Your task to perform on an android device: turn off notifications in google photos Image 0: 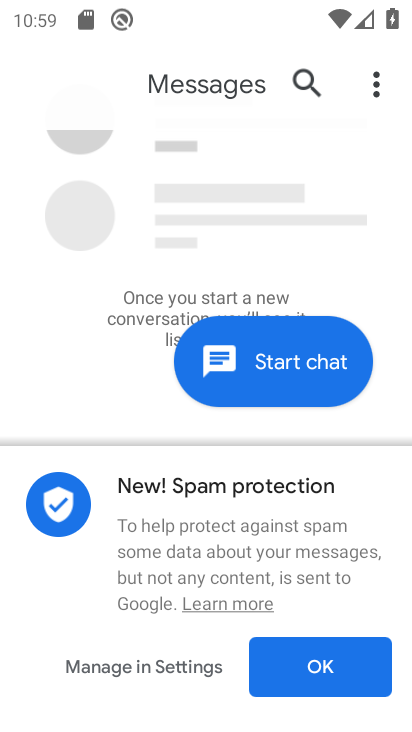
Step 0: press home button
Your task to perform on an android device: turn off notifications in google photos Image 1: 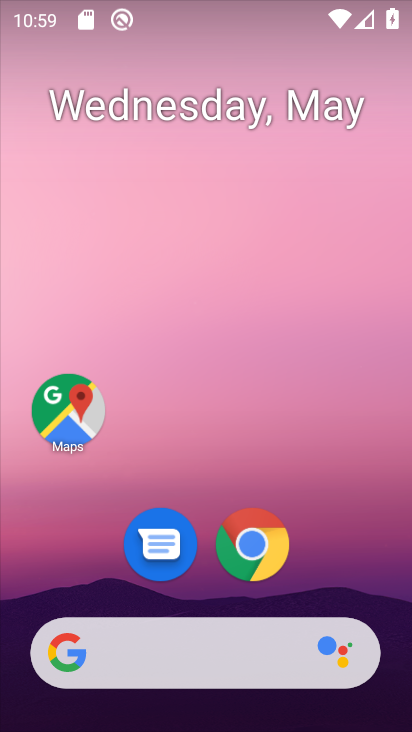
Step 1: drag from (356, 576) to (24, 32)
Your task to perform on an android device: turn off notifications in google photos Image 2: 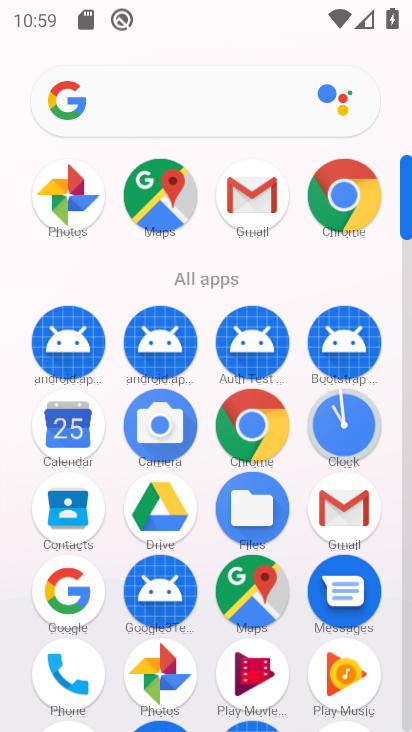
Step 2: click (76, 195)
Your task to perform on an android device: turn off notifications in google photos Image 3: 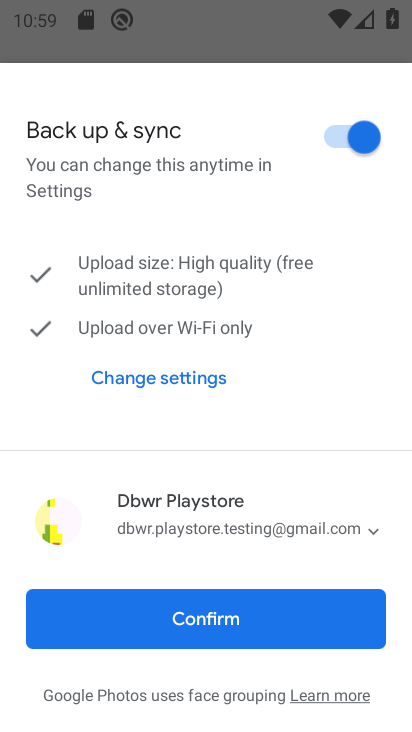
Step 3: press back button
Your task to perform on an android device: turn off notifications in google photos Image 4: 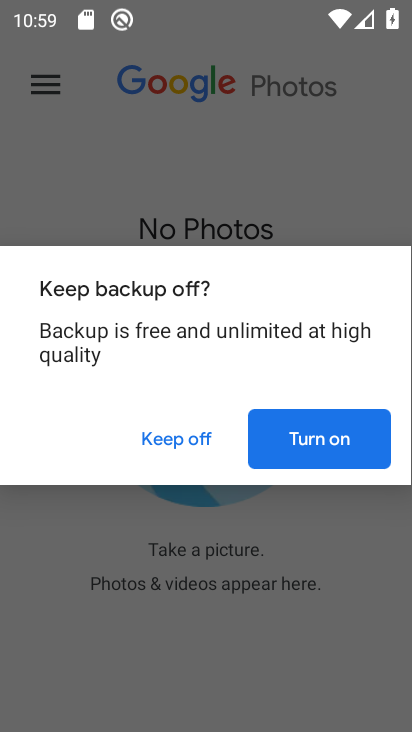
Step 4: click (306, 444)
Your task to perform on an android device: turn off notifications in google photos Image 5: 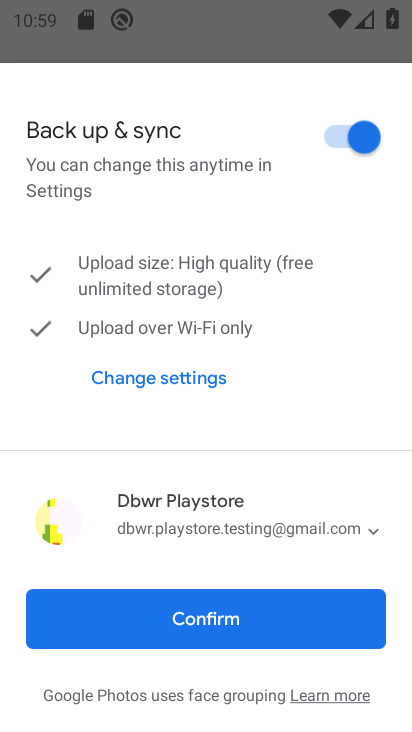
Step 5: click (189, 624)
Your task to perform on an android device: turn off notifications in google photos Image 6: 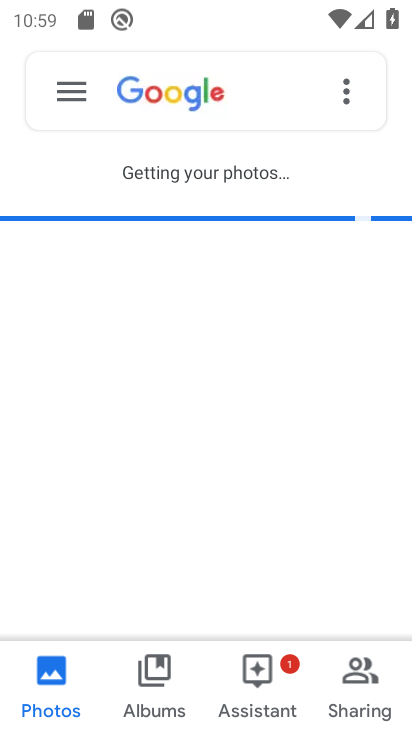
Step 6: click (71, 88)
Your task to perform on an android device: turn off notifications in google photos Image 7: 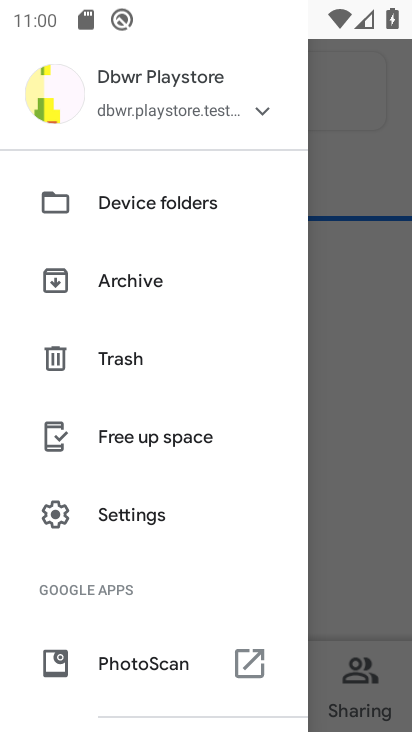
Step 7: click (123, 512)
Your task to perform on an android device: turn off notifications in google photos Image 8: 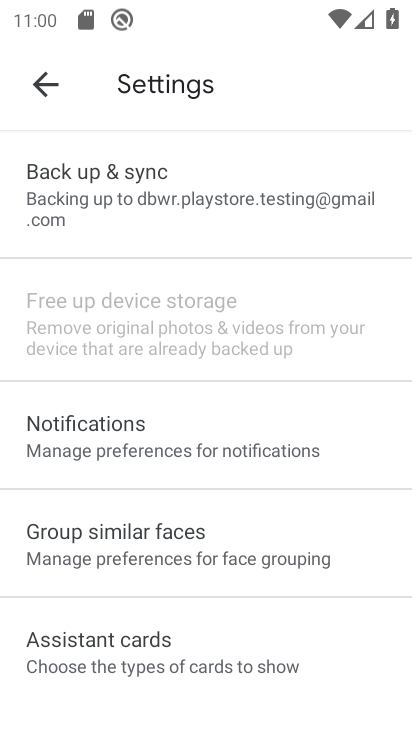
Step 8: click (94, 200)
Your task to perform on an android device: turn off notifications in google photos Image 9: 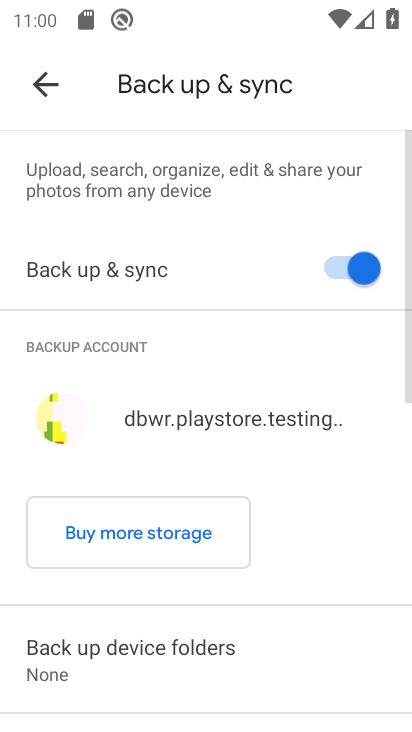
Step 9: click (45, 93)
Your task to perform on an android device: turn off notifications in google photos Image 10: 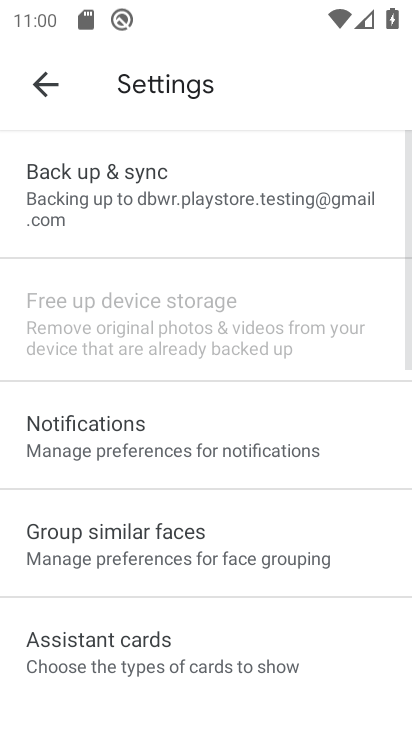
Step 10: click (88, 415)
Your task to perform on an android device: turn off notifications in google photos Image 11: 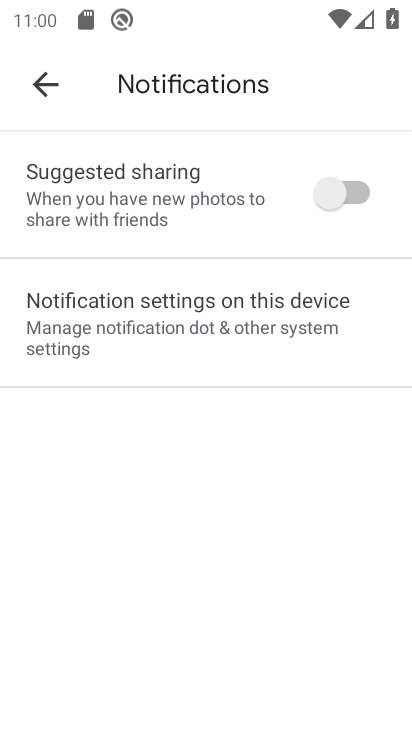
Step 11: click (156, 335)
Your task to perform on an android device: turn off notifications in google photos Image 12: 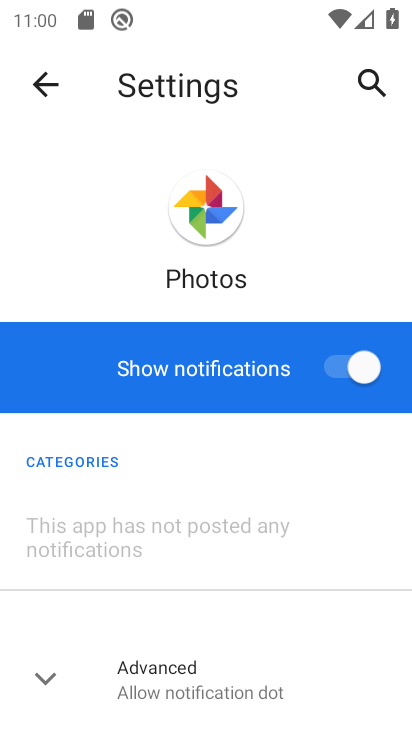
Step 12: click (338, 365)
Your task to perform on an android device: turn off notifications in google photos Image 13: 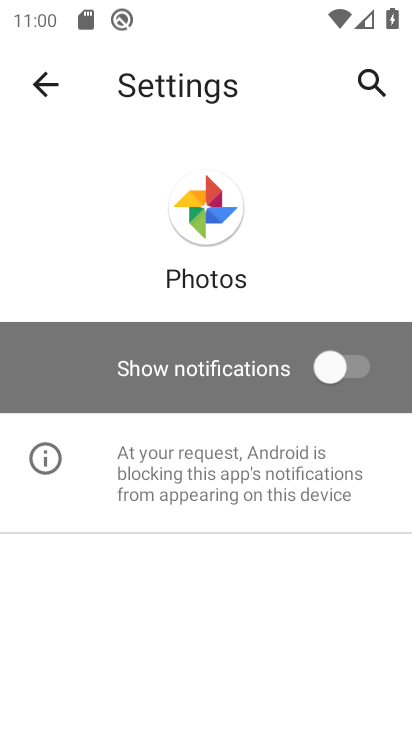
Step 13: task complete